Your task to perform on an android device: Show me productivity apps on the Play Store Image 0: 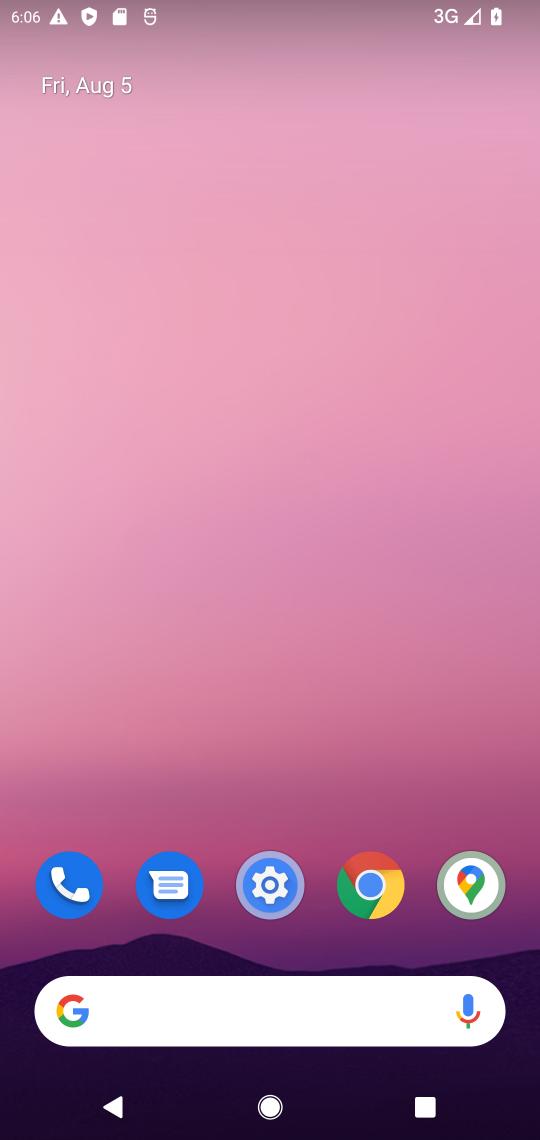
Step 0: drag from (254, 930) to (352, 33)
Your task to perform on an android device: Show me productivity apps on the Play Store Image 1: 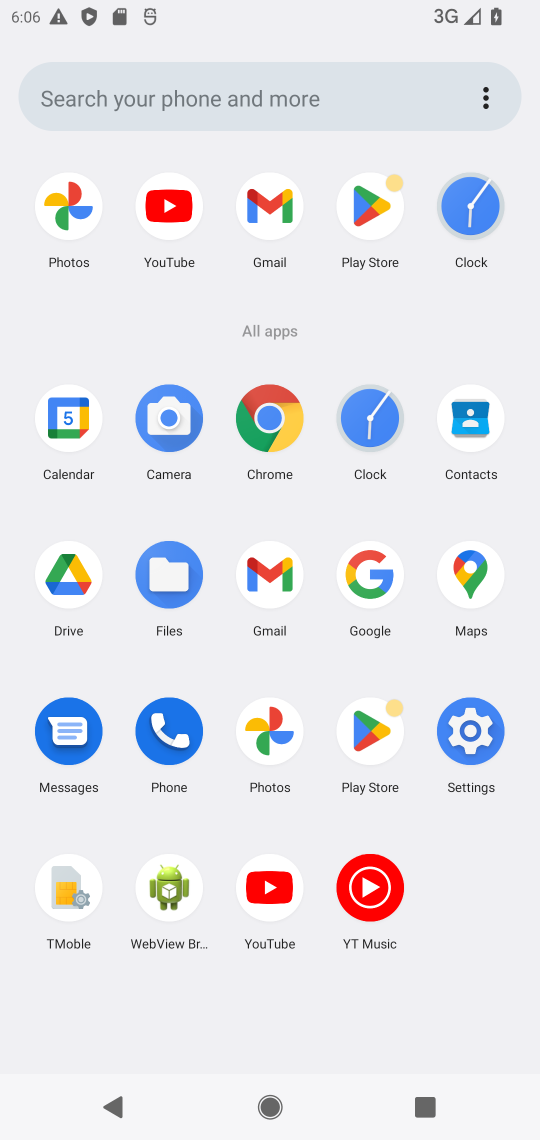
Step 1: click (365, 735)
Your task to perform on an android device: Show me productivity apps on the Play Store Image 2: 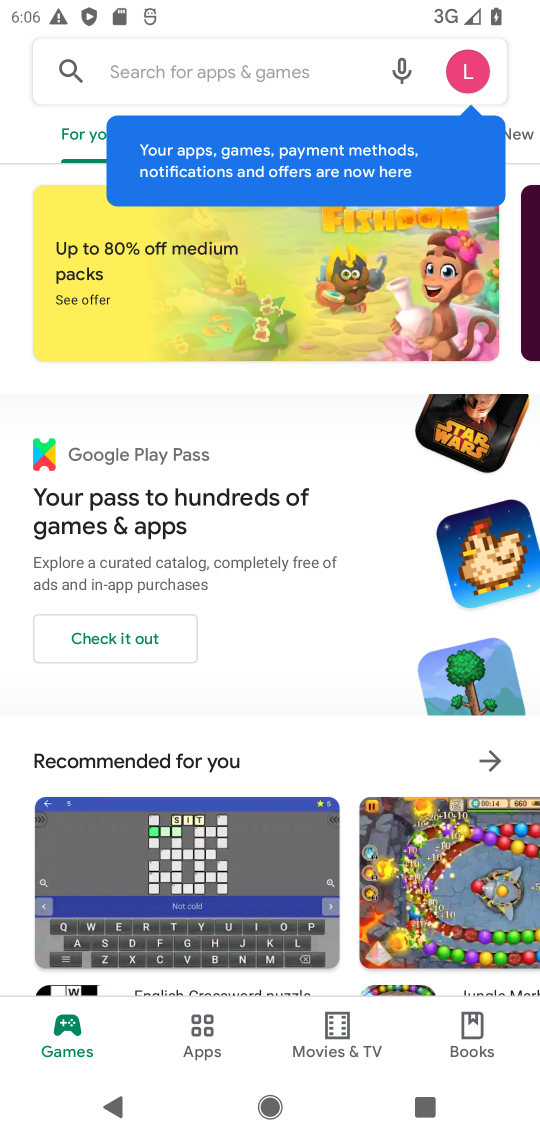
Step 2: click (203, 1026)
Your task to perform on an android device: Show me productivity apps on the Play Store Image 3: 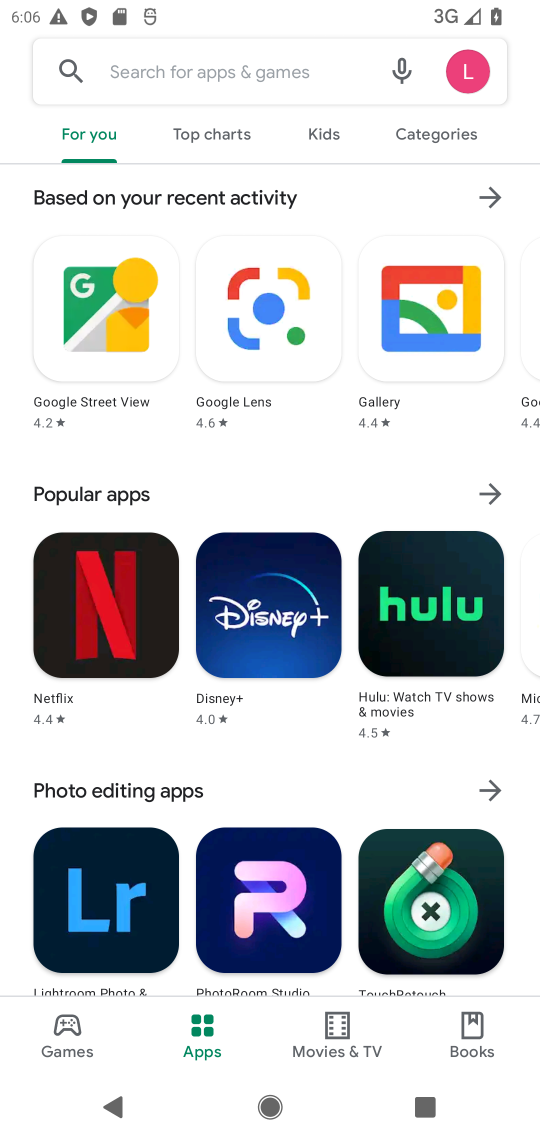
Step 3: click (429, 135)
Your task to perform on an android device: Show me productivity apps on the Play Store Image 4: 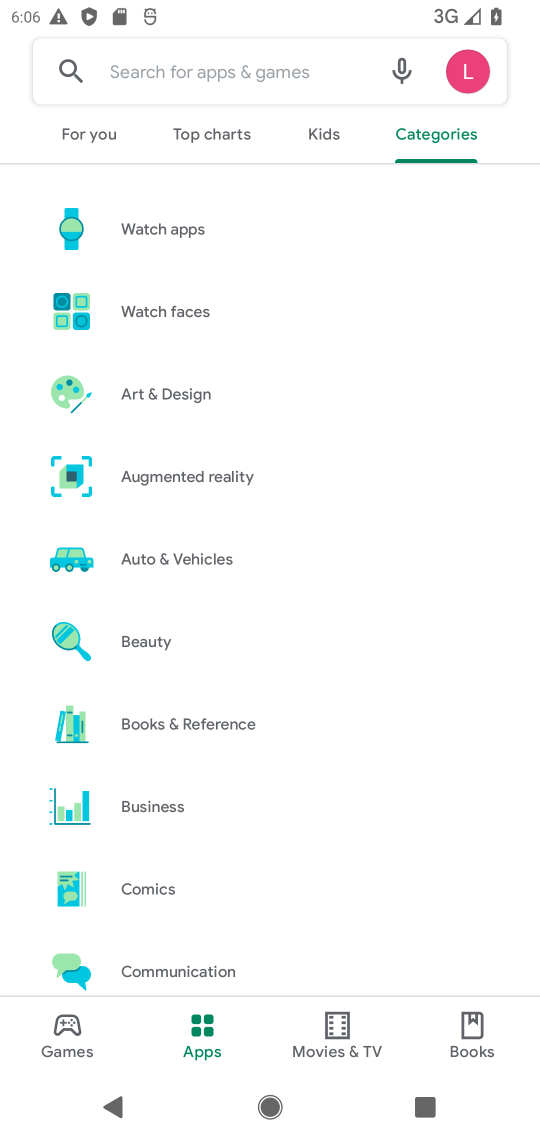
Step 4: drag from (193, 807) to (257, 10)
Your task to perform on an android device: Show me productivity apps on the Play Store Image 5: 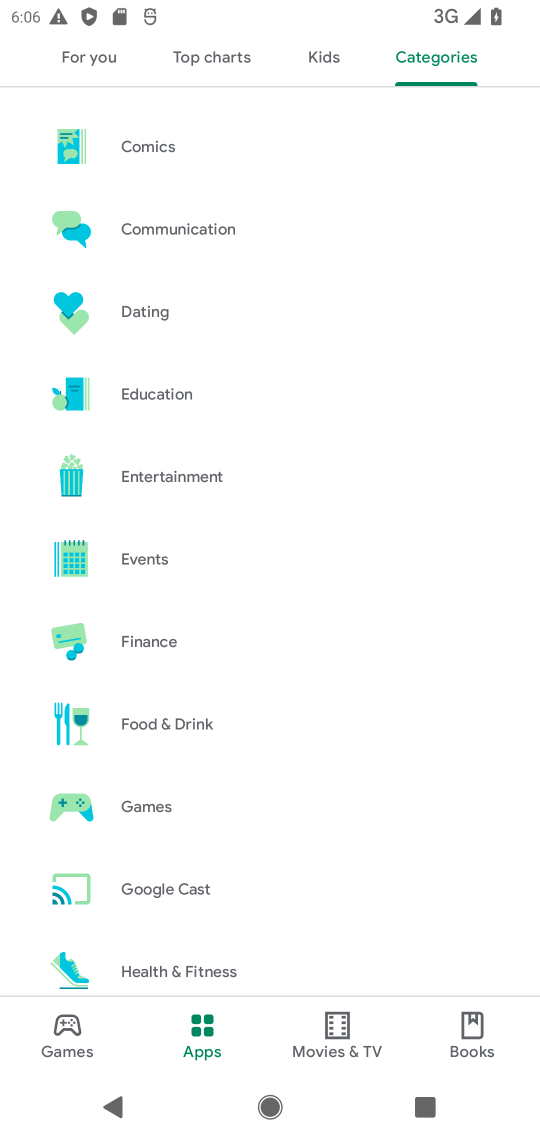
Step 5: drag from (188, 936) to (231, 15)
Your task to perform on an android device: Show me productivity apps on the Play Store Image 6: 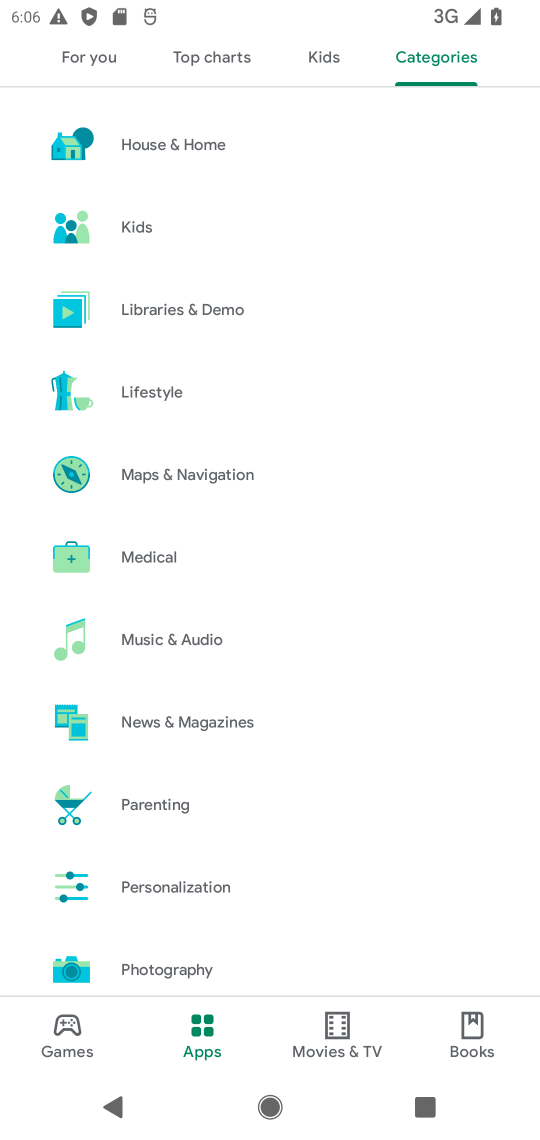
Step 6: drag from (203, 898) to (170, 319)
Your task to perform on an android device: Show me productivity apps on the Play Store Image 7: 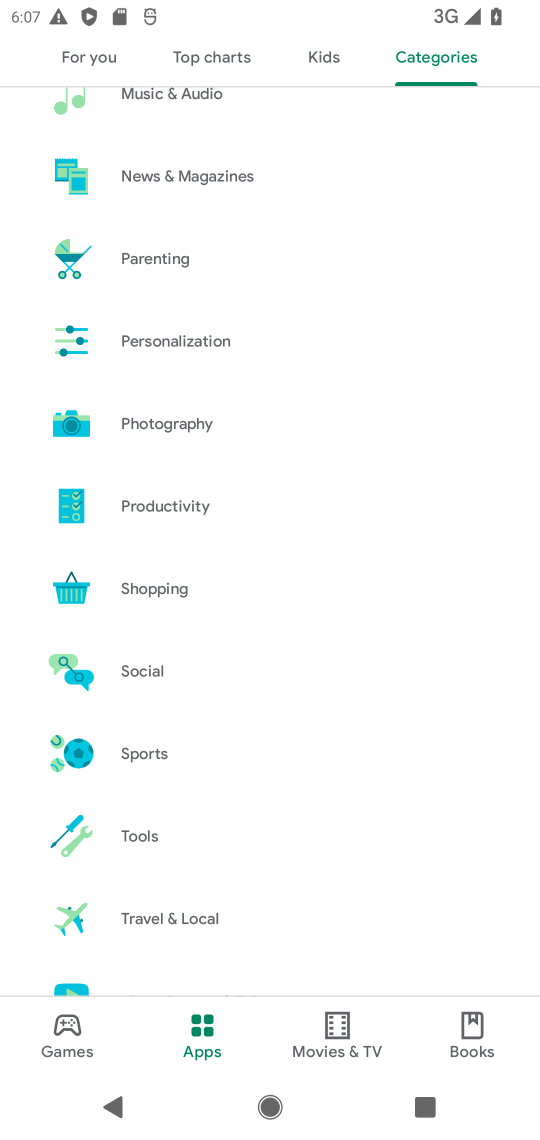
Step 7: click (168, 509)
Your task to perform on an android device: Show me productivity apps on the Play Store Image 8: 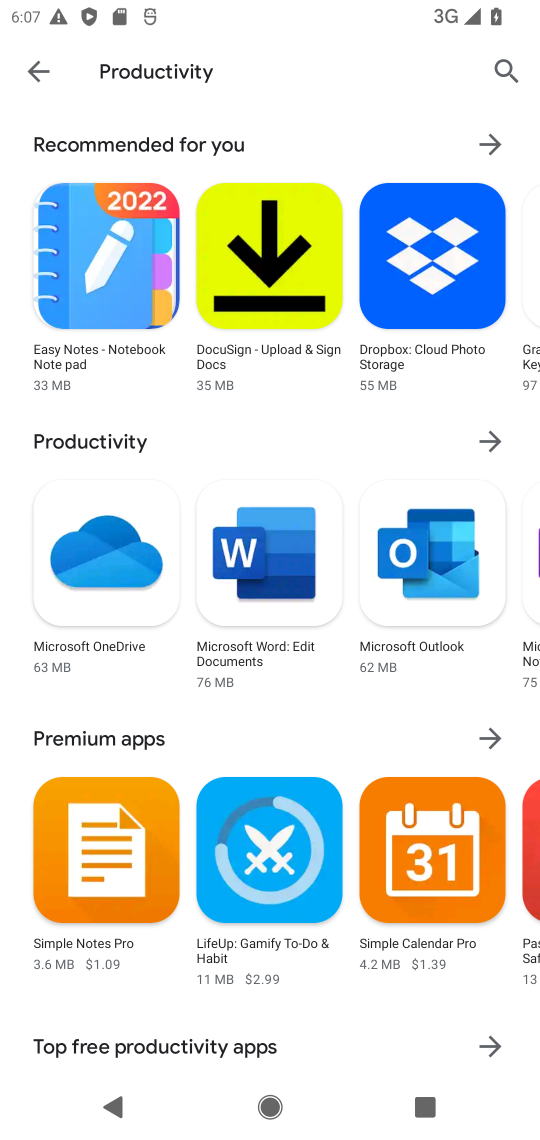
Step 8: task complete